Your task to perform on an android device: Open Google Chrome Image 0: 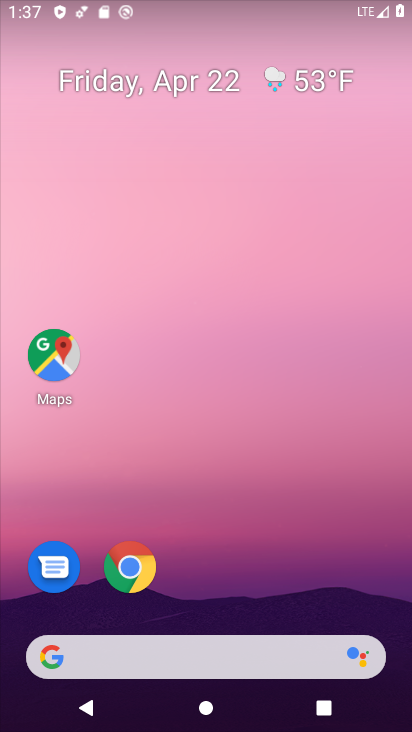
Step 0: click (132, 571)
Your task to perform on an android device: Open Google Chrome Image 1: 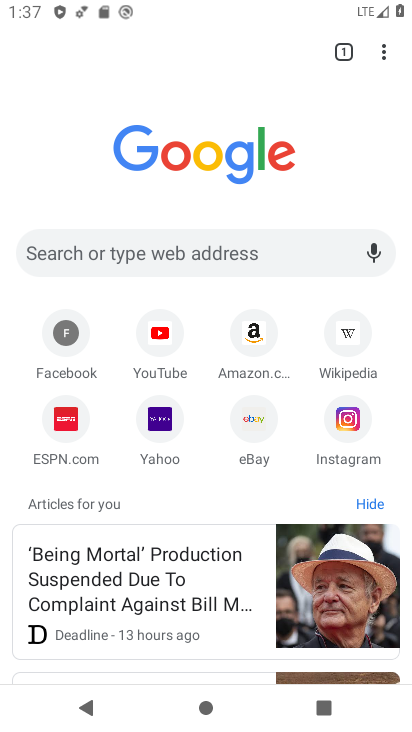
Step 1: task complete